Your task to perform on an android device: refresh tabs in the chrome app Image 0: 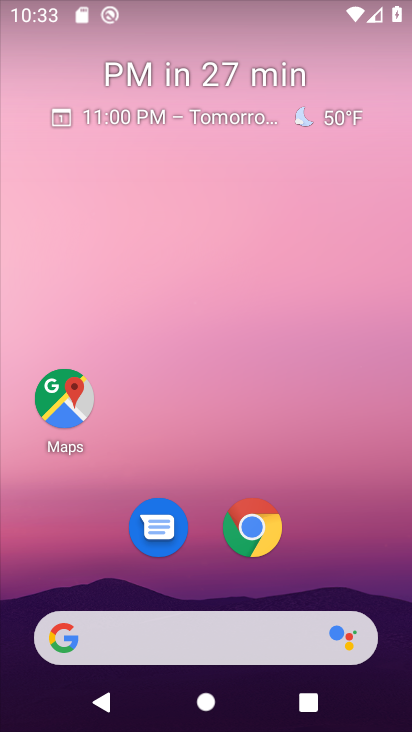
Step 0: click (266, 529)
Your task to perform on an android device: refresh tabs in the chrome app Image 1: 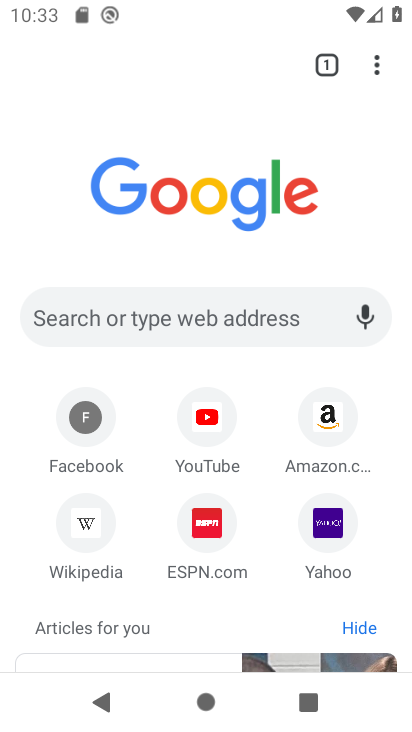
Step 1: click (380, 63)
Your task to perform on an android device: refresh tabs in the chrome app Image 2: 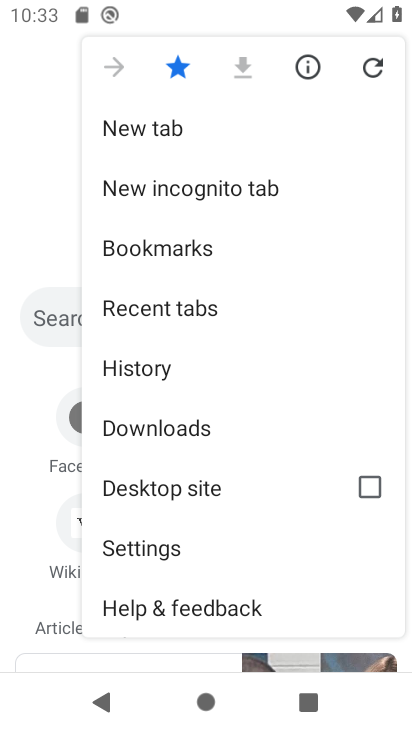
Step 2: click (375, 72)
Your task to perform on an android device: refresh tabs in the chrome app Image 3: 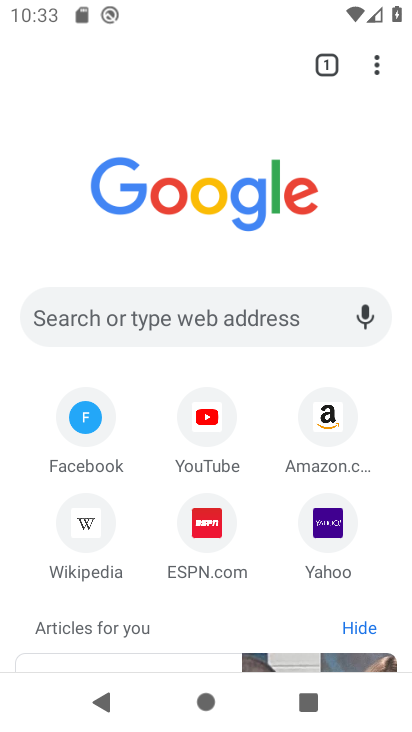
Step 3: task complete